Your task to perform on an android device: Go to internet settings Image 0: 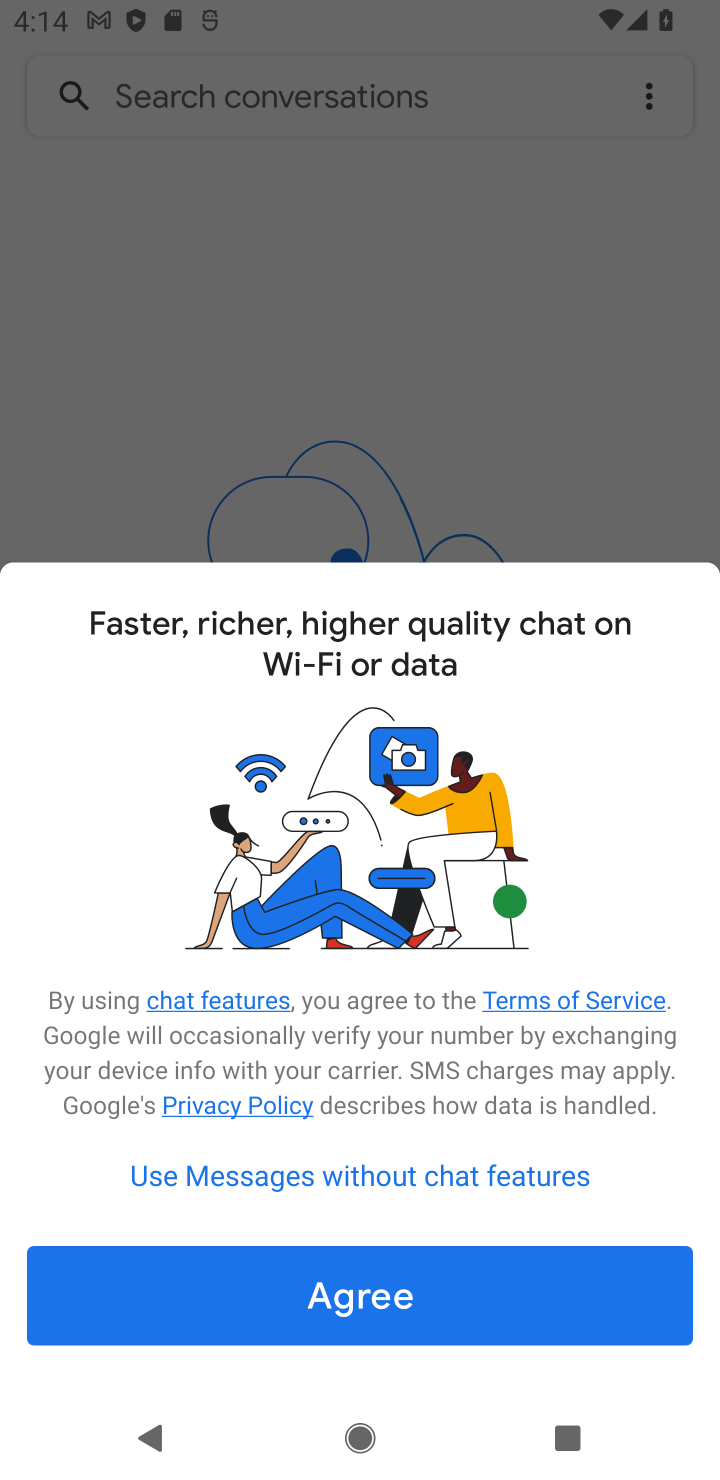
Step 0: press home button
Your task to perform on an android device: Go to internet settings Image 1: 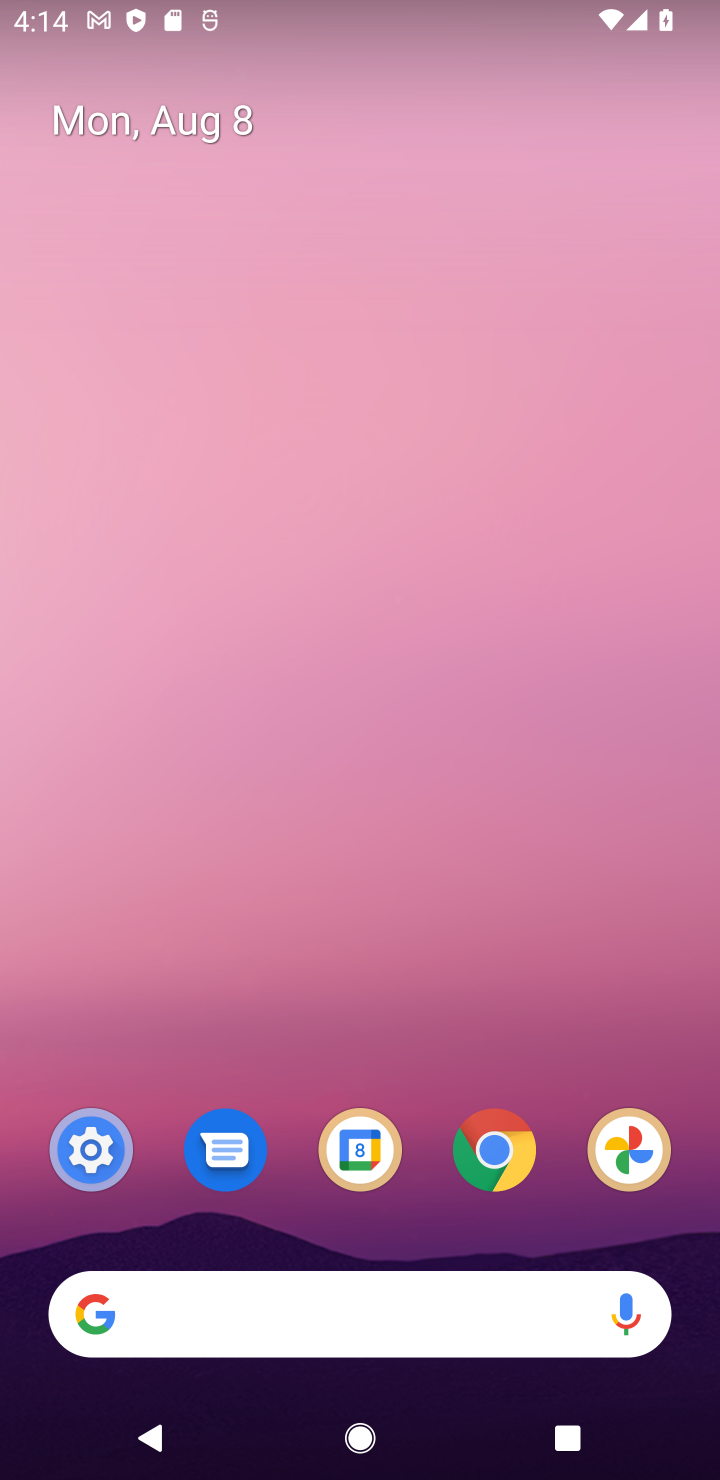
Step 1: click (95, 1152)
Your task to perform on an android device: Go to internet settings Image 2: 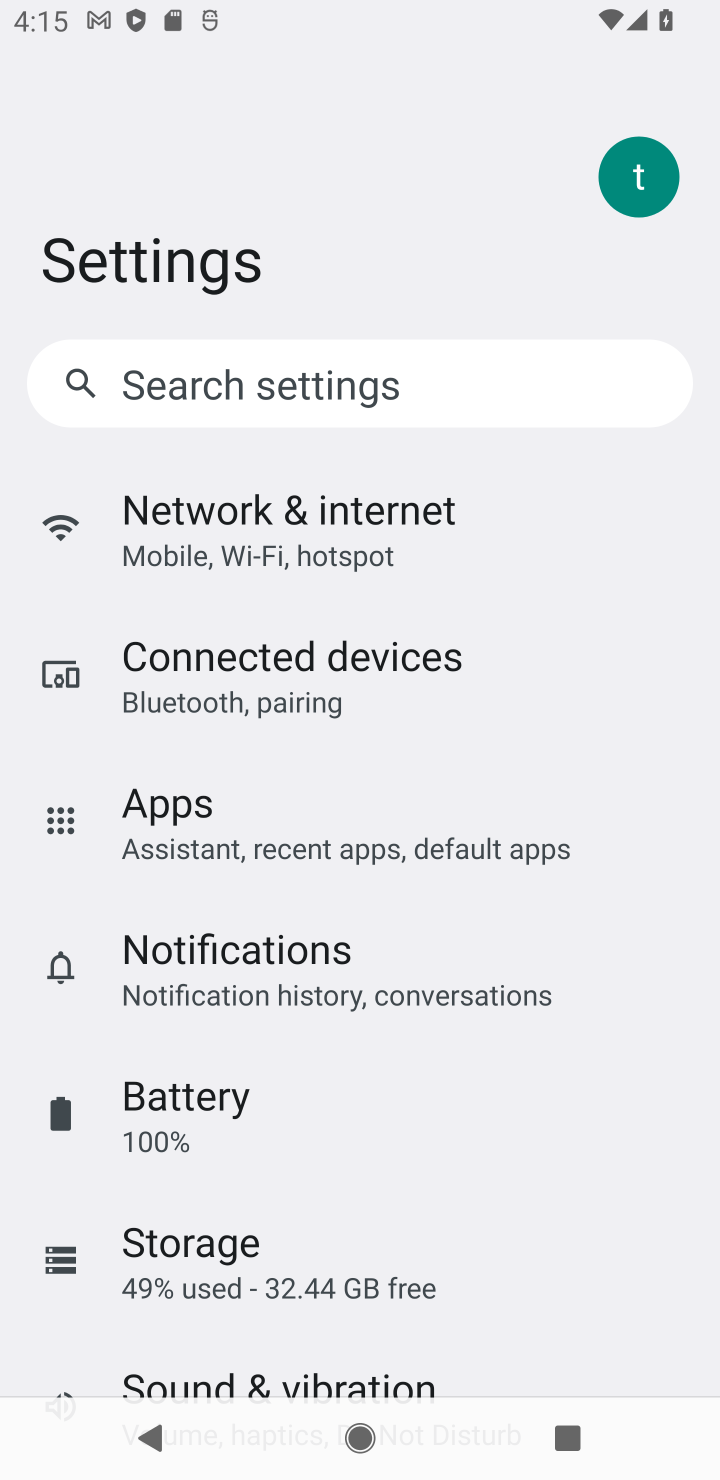
Step 2: click (215, 506)
Your task to perform on an android device: Go to internet settings Image 3: 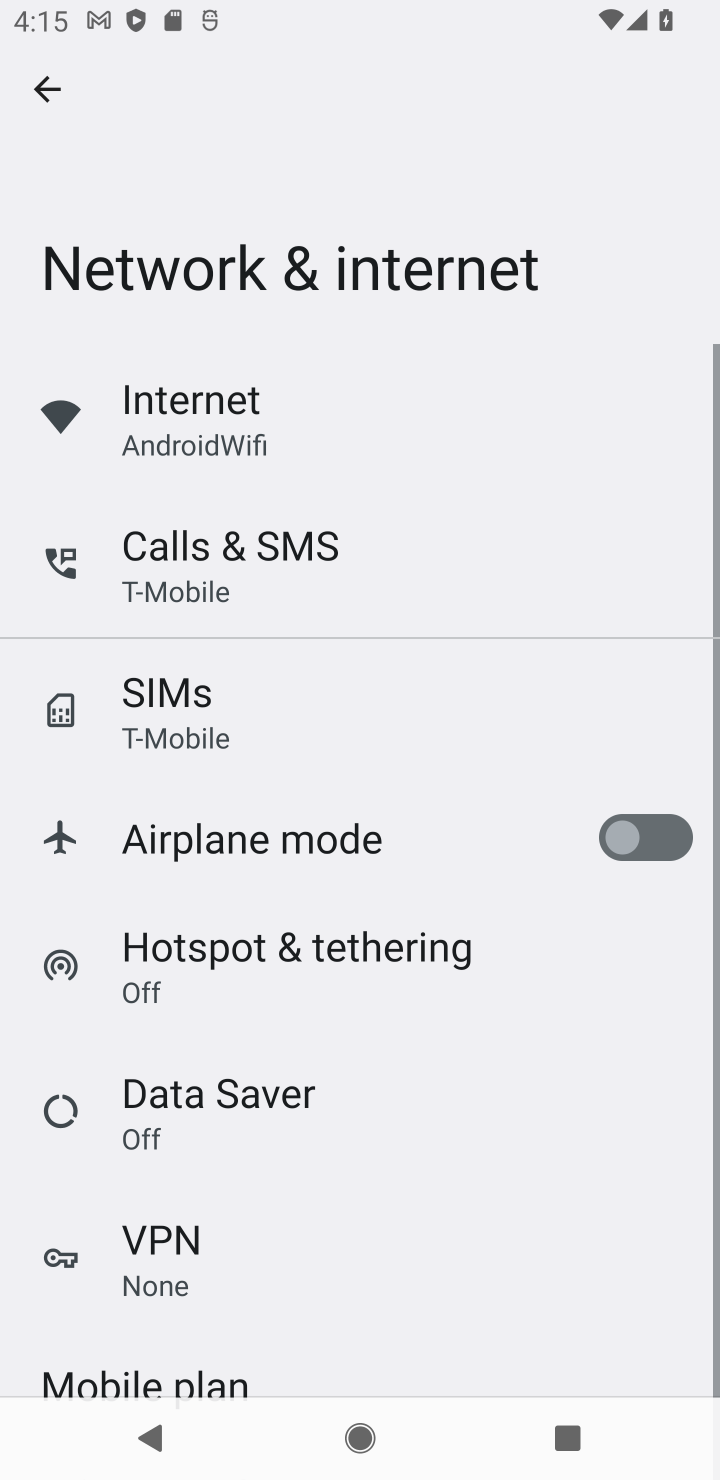
Step 3: task complete